Your task to perform on an android device: turn pop-ups on in chrome Image 0: 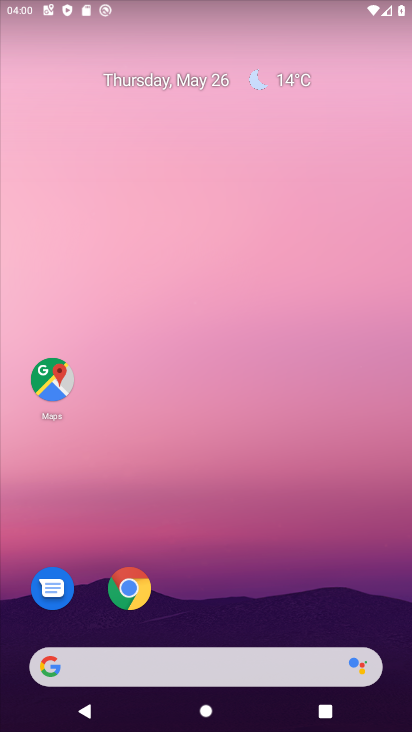
Step 0: click (115, 595)
Your task to perform on an android device: turn pop-ups on in chrome Image 1: 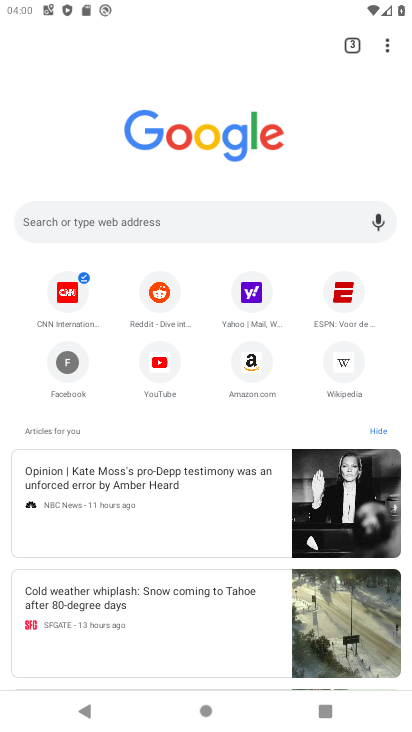
Step 1: click (377, 54)
Your task to perform on an android device: turn pop-ups on in chrome Image 2: 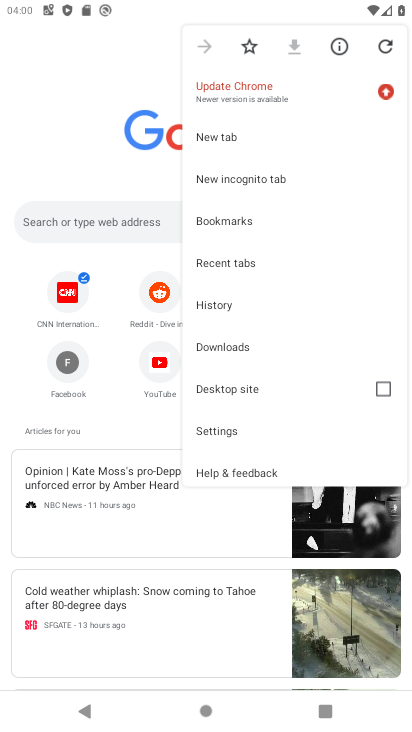
Step 2: click (232, 425)
Your task to perform on an android device: turn pop-ups on in chrome Image 3: 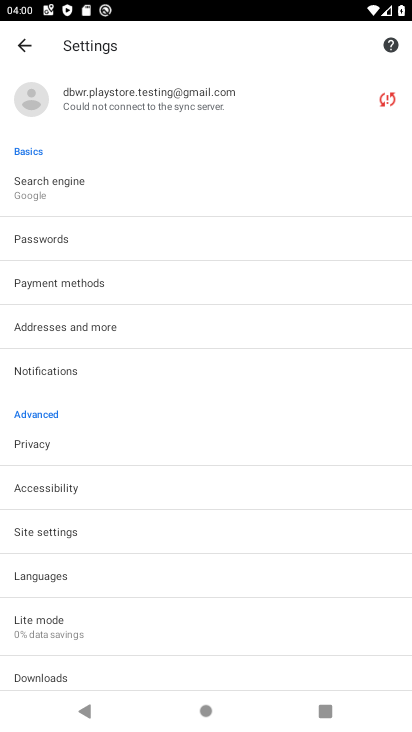
Step 3: click (200, 570)
Your task to perform on an android device: turn pop-ups on in chrome Image 4: 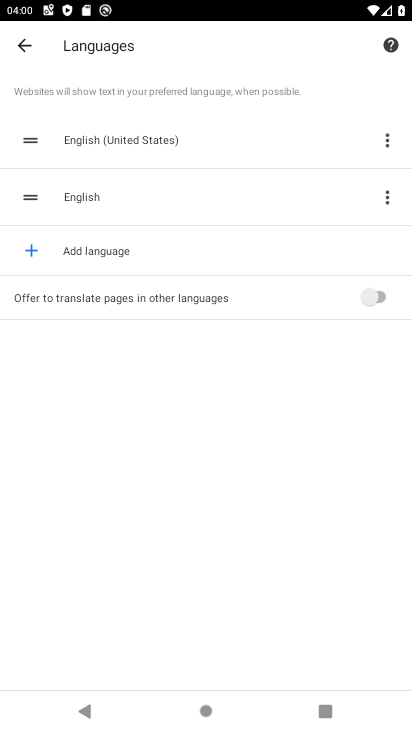
Step 4: task complete